Your task to perform on an android device: open the mobile data screen to see how much data has been used Image 0: 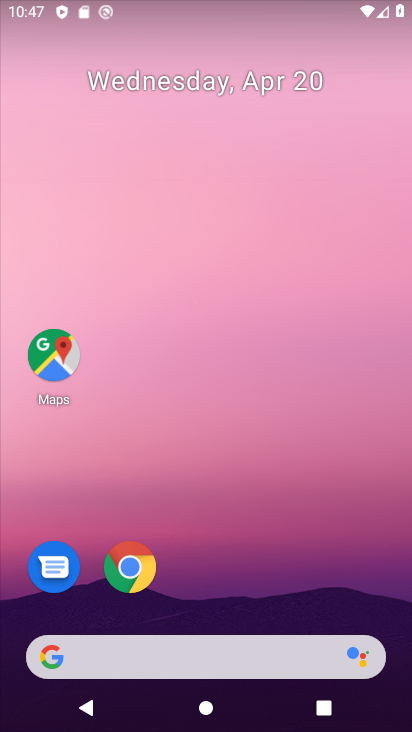
Step 0: drag from (227, 586) to (262, 0)
Your task to perform on an android device: open the mobile data screen to see how much data has been used Image 1: 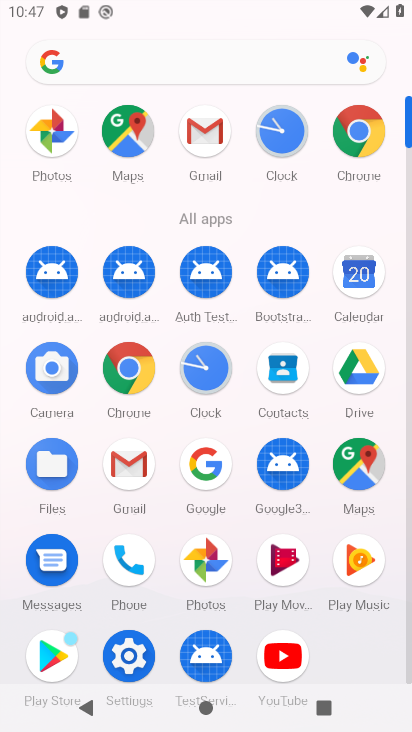
Step 1: click (123, 653)
Your task to perform on an android device: open the mobile data screen to see how much data has been used Image 2: 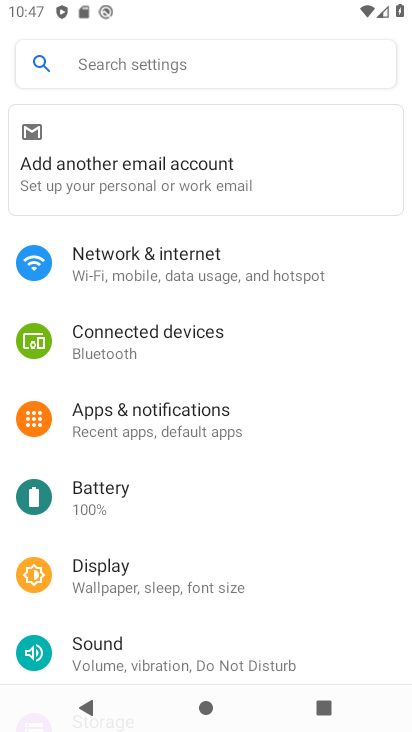
Step 2: click (184, 263)
Your task to perform on an android device: open the mobile data screen to see how much data has been used Image 3: 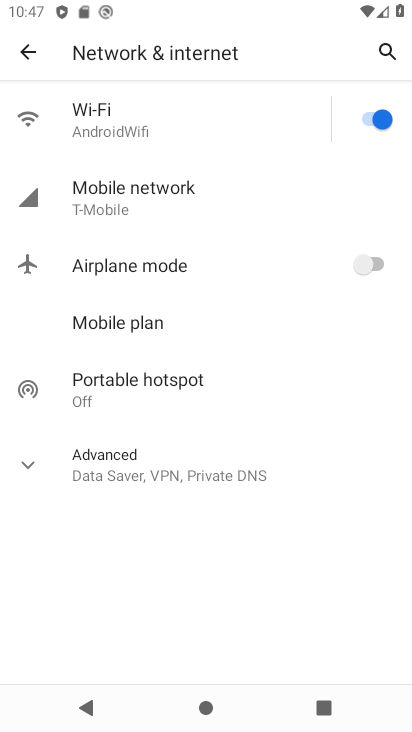
Step 3: click (112, 188)
Your task to perform on an android device: open the mobile data screen to see how much data has been used Image 4: 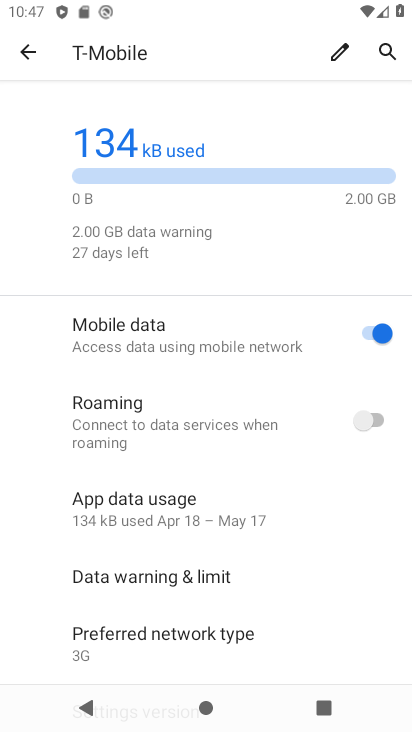
Step 4: click (152, 513)
Your task to perform on an android device: open the mobile data screen to see how much data has been used Image 5: 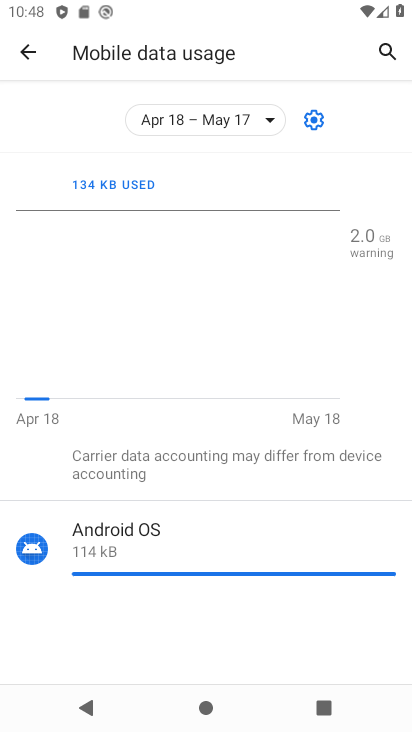
Step 5: task complete